Your task to perform on an android device: Go to network settings Image 0: 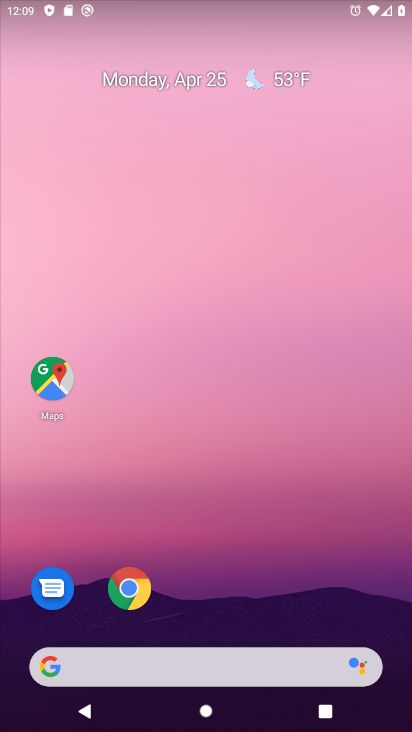
Step 0: drag from (252, 603) to (343, 140)
Your task to perform on an android device: Go to network settings Image 1: 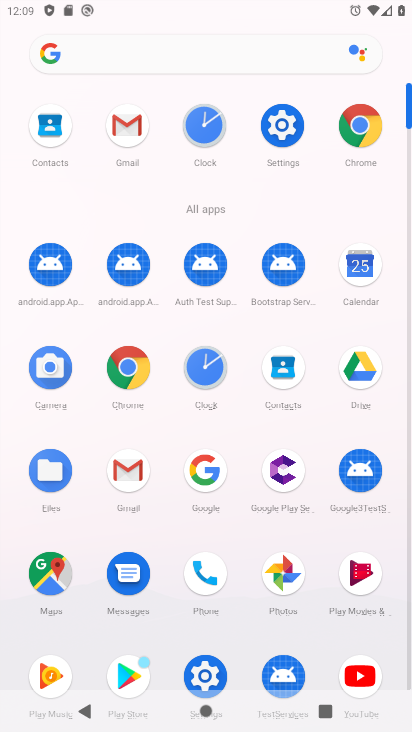
Step 1: click (266, 121)
Your task to perform on an android device: Go to network settings Image 2: 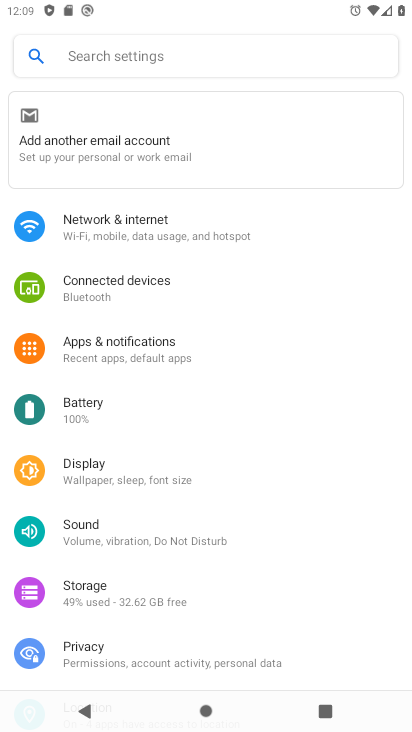
Step 2: click (223, 252)
Your task to perform on an android device: Go to network settings Image 3: 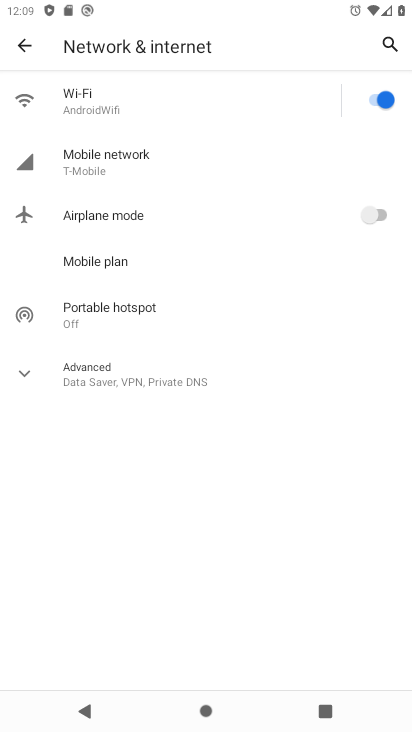
Step 3: task complete